Your task to perform on an android device: Open the stopwatch Image 0: 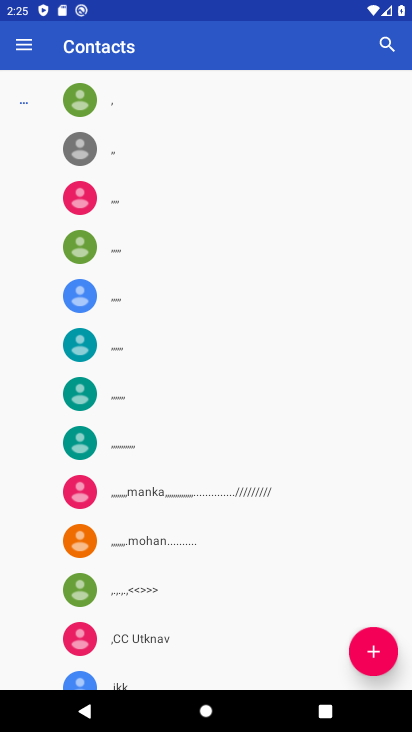
Step 0: press home button
Your task to perform on an android device: Open the stopwatch Image 1: 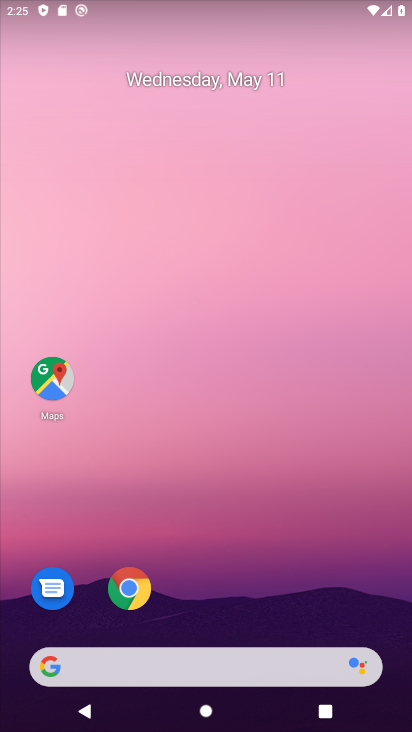
Step 1: drag from (314, 553) to (290, 1)
Your task to perform on an android device: Open the stopwatch Image 2: 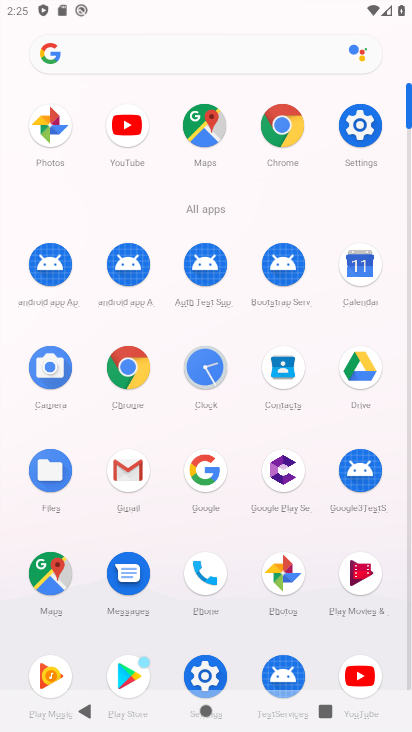
Step 2: click (204, 371)
Your task to perform on an android device: Open the stopwatch Image 3: 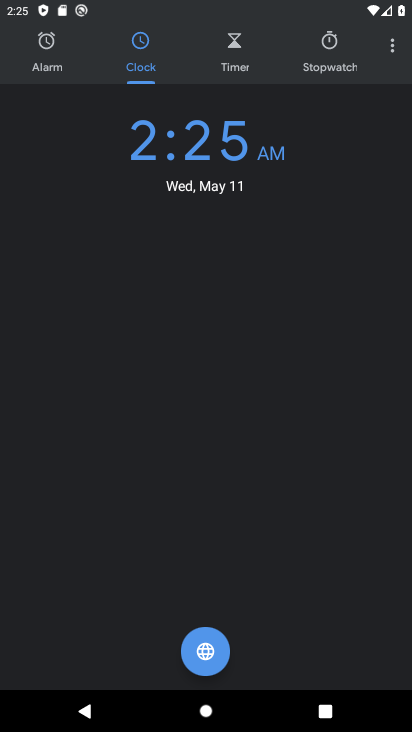
Step 3: click (318, 59)
Your task to perform on an android device: Open the stopwatch Image 4: 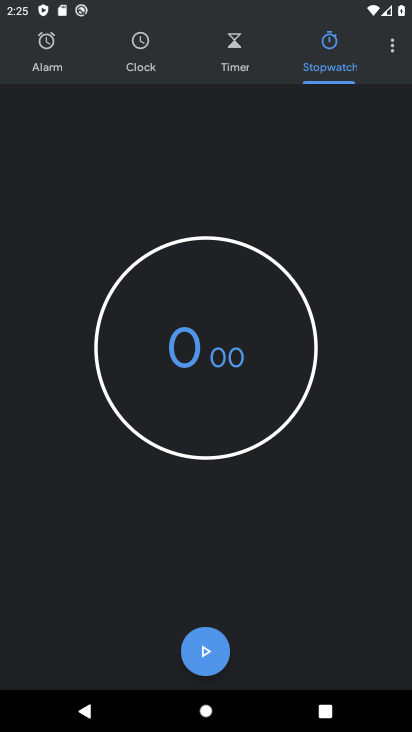
Step 4: click (205, 651)
Your task to perform on an android device: Open the stopwatch Image 5: 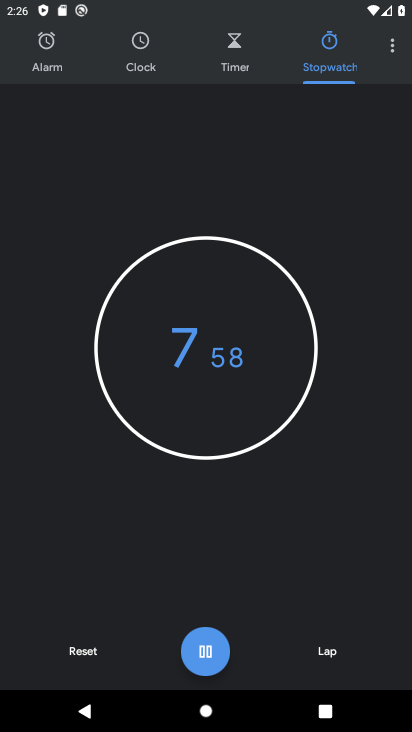
Step 5: task complete